Your task to perform on an android device: turn on notifications settings in the gmail app Image 0: 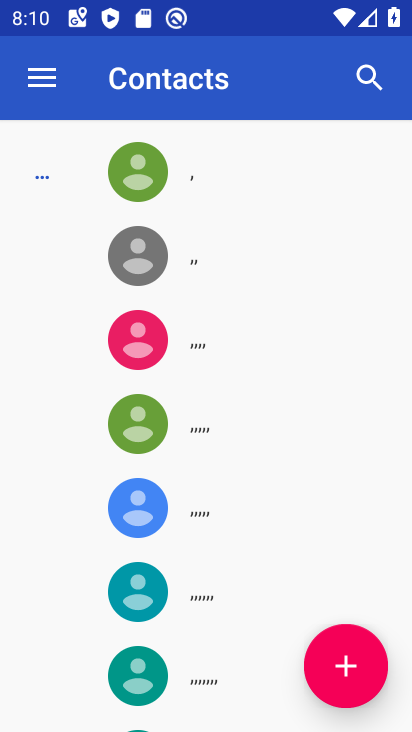
Step 0: press home button
Your task to perform on an android device: turn on notifications settings in the gmail app Image 1: 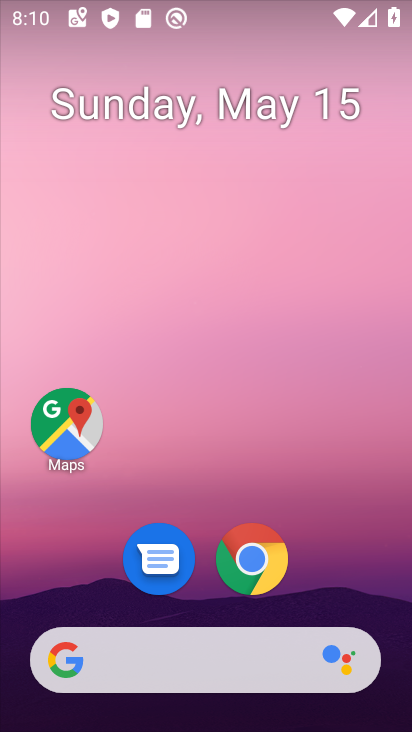
Step 1: drag from (353, 562) to (385, 168)
Your task to perform on an android device: turn on notifications settings in the gmail app Image 2: 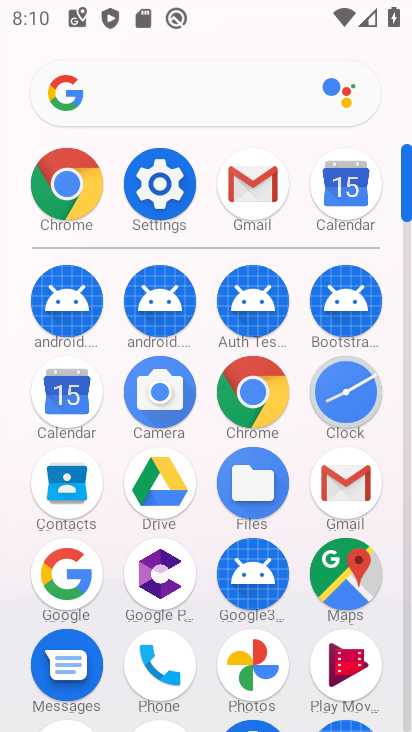
Step 2: click (247, 194)
Your task to perform on an android device: turn on notifications settings in the gmail app Image 3: 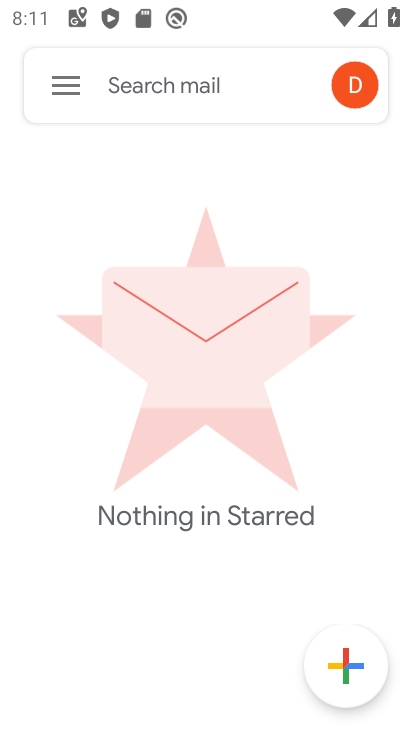
Step 3: click (74, 97)
Your task to perform on an android device: turn on notifications settings in the gmail app Image 4: 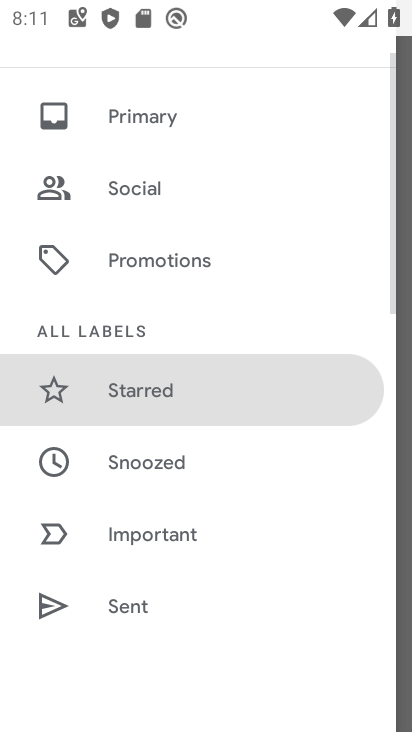
Step 4: drag from (144, 497) to (206, 84)
Your task to perform on an android device: turn on notifications settings in the gmail app Image 5: 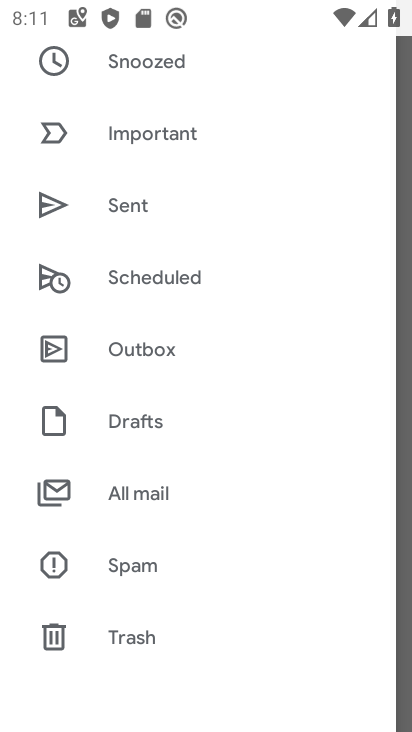
Step 5: drag from (100, 669) to (116, 413)
Your task to perform on an android device: turn on notifications settings in the gmail app Image 6: 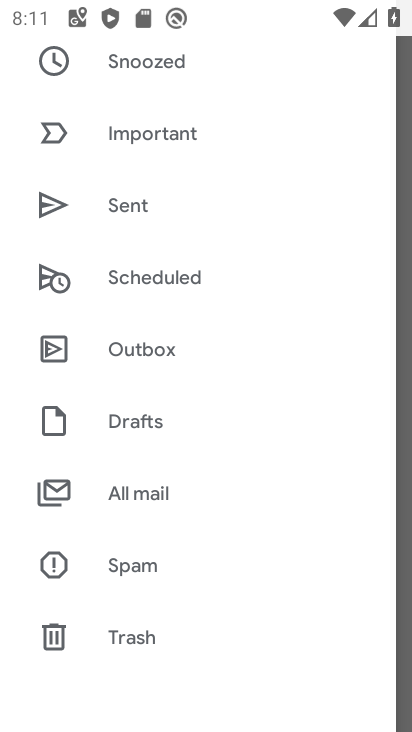
Step 6: drag from (252, 657) to (245, 303)
Your task to perform on an android device: turn on notifications settings in the gmail app Image 7: 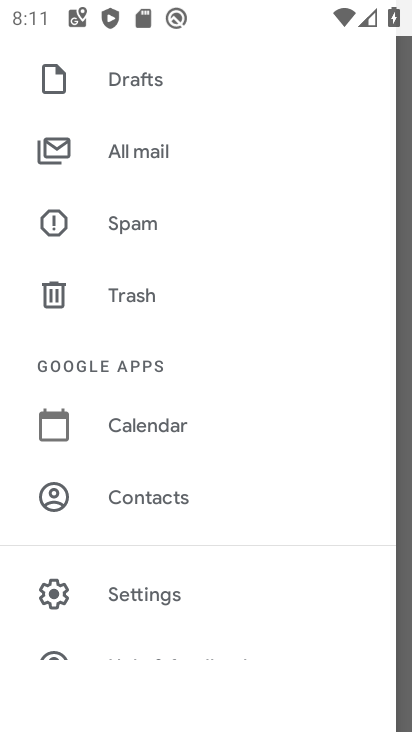
Step 7: click (259, 604)
Your task to perform on an android device: turn on notifications settings in the gmail app Image 8: 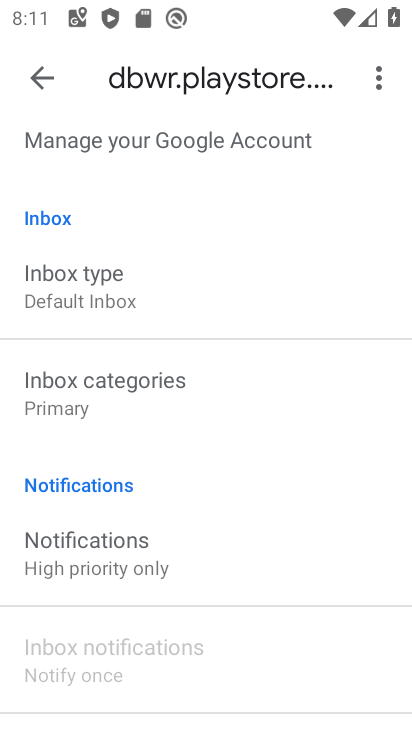
Step 8: drag from (257, 552) to (217, 333)
Your task to perform on an android device: turn on notifications settings in the gmail app Image 9: 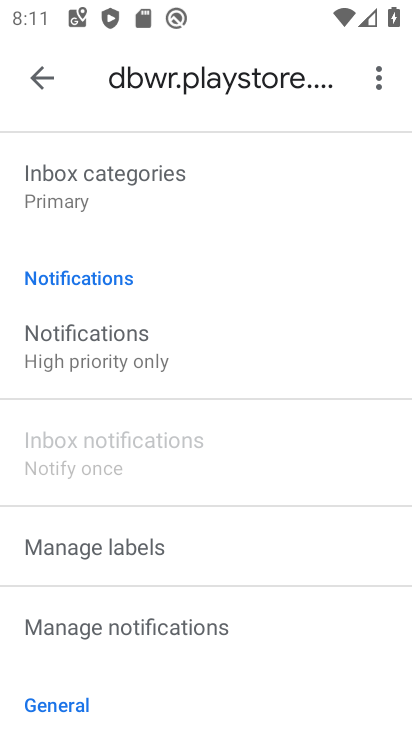
Step 9: click (170, 614)
Your task to perform on an android device: turn on notifications settings in the gmail app Image 10: 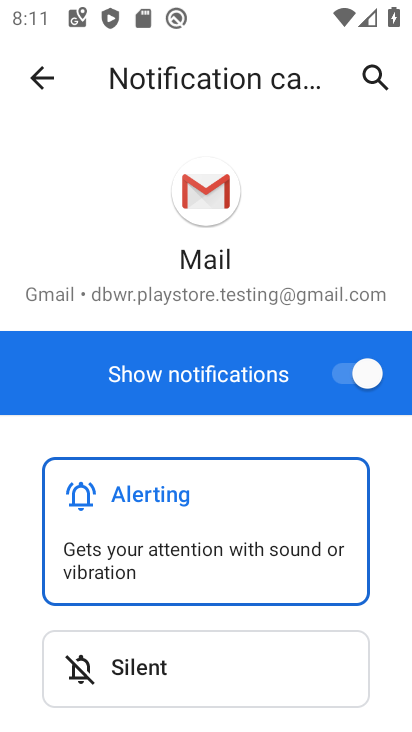
Step 10: task complete